Your task to perform on an android device: toggle priority inbox in the gmail app Image 0: 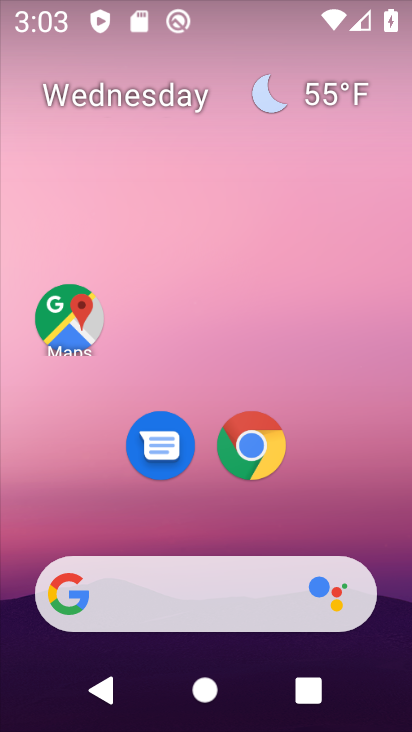
Step 0: drag from (362, 413) to (347, 15)
Your task to perform on an android device: toggle priority inbox in the gmail app Image 1: 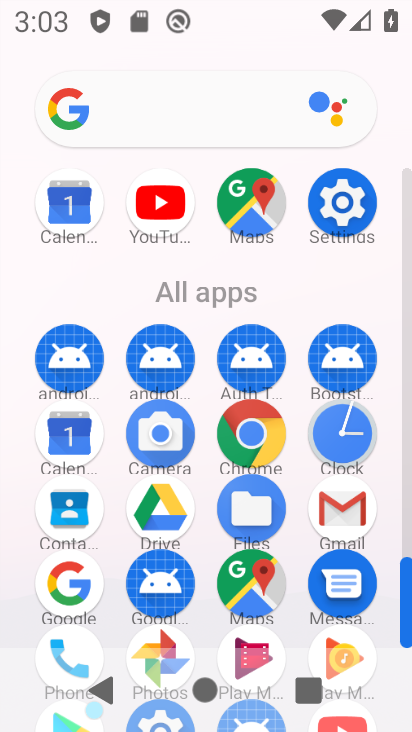
Step 1: click (337, 483)
Your task to perform on an android device: toggle priority inbox in the gmail app Image 2: 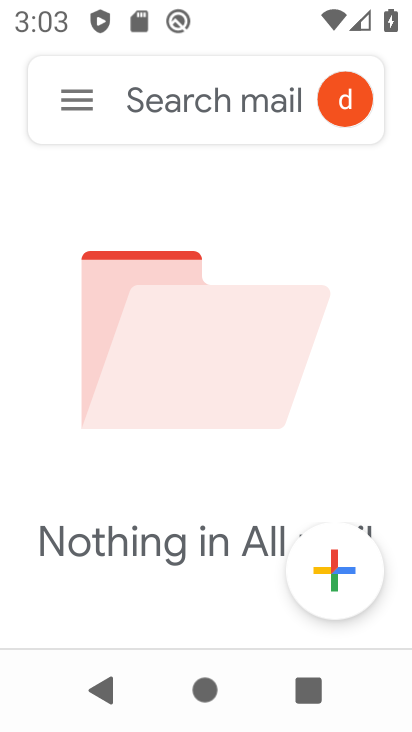
Step 2: click (64, 90)
Your task to perform on an android device: toggle priority inbox in the gmail app Image 3: 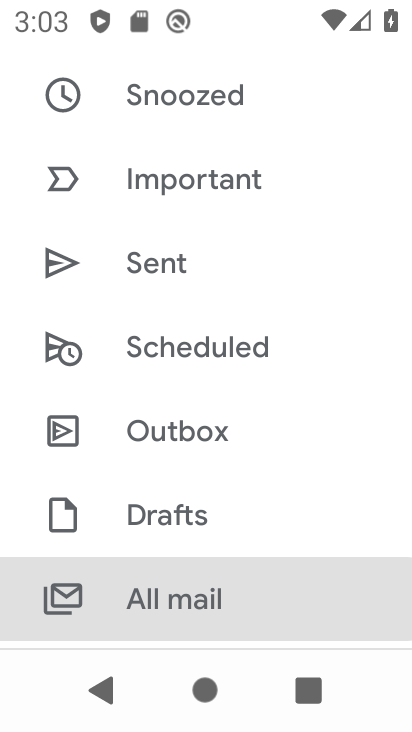
Step 3: drag from (276, 202) to (288, 647)
Your task to perform on an android device: toggle priority inbox in the gmail app Image 4: 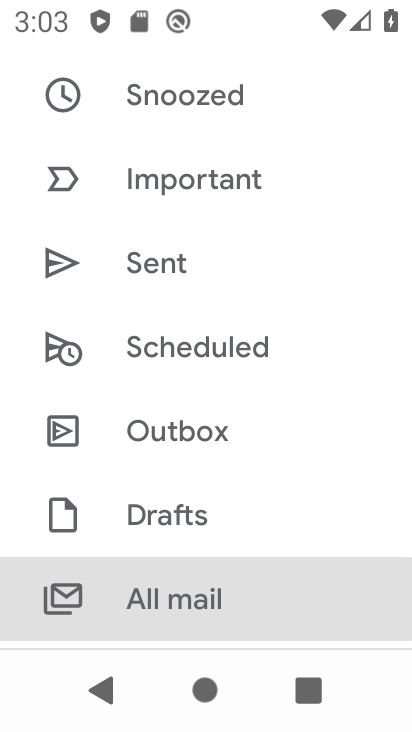
Step 4: drag from (321, 519) to (317, 276)
Your task to perform on an android device: toggle priority inbox in the gmail app Image 5: 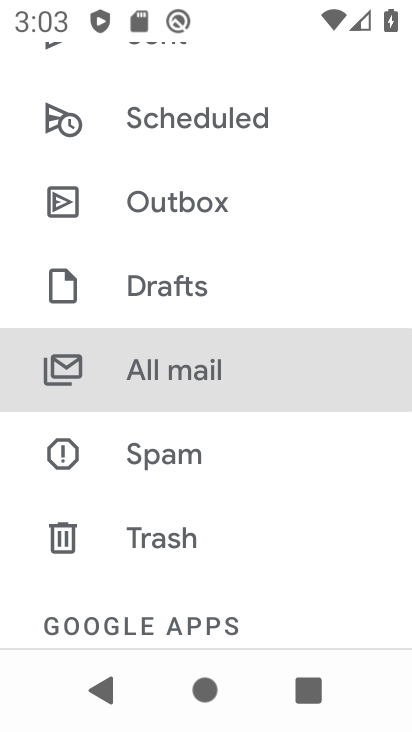
Step 5: drag from (314, 271) to (330, 21)
Your task to perform on an android device: toggle priority inbox in the gmail app Image 6: 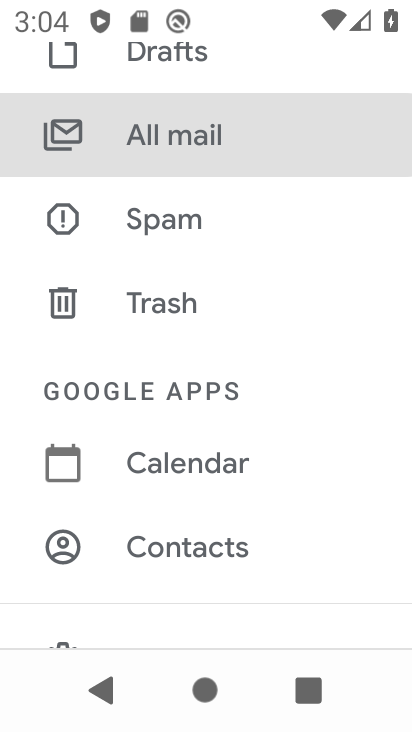
Step 6: drag from (256, 400) to (269, 160)
Your task to perform on an android device: toggle priority inbox in the gmail app Image 7: 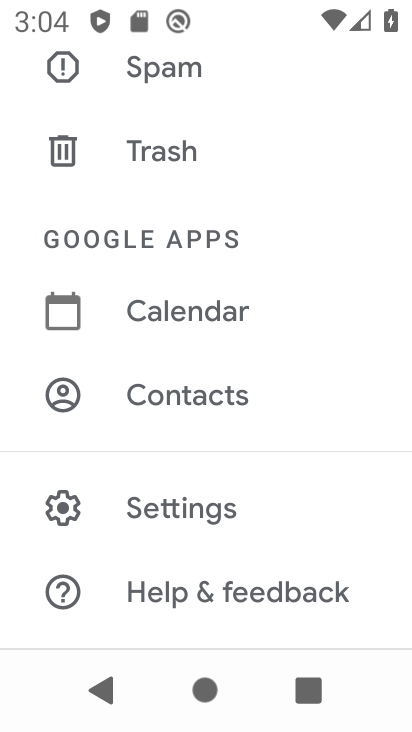
Step 7: click (165, 503)
Your task to perform on an android device: toggle priority inbox in the gmail app Image 8: 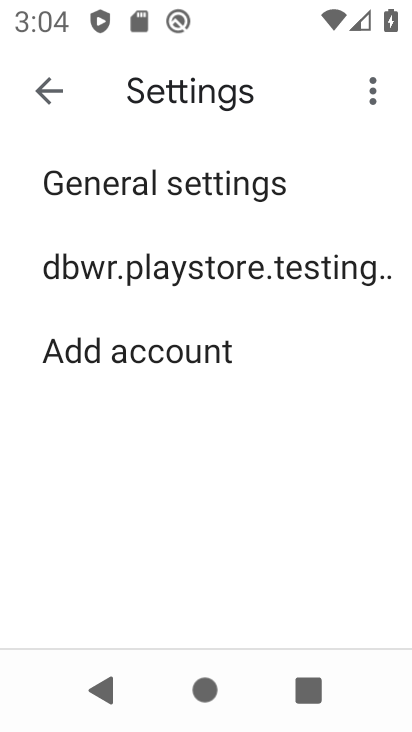
Step 8: click (198, 208)
Your task to perform on an android device: toggle priority inbox in the gmail app Image 9: 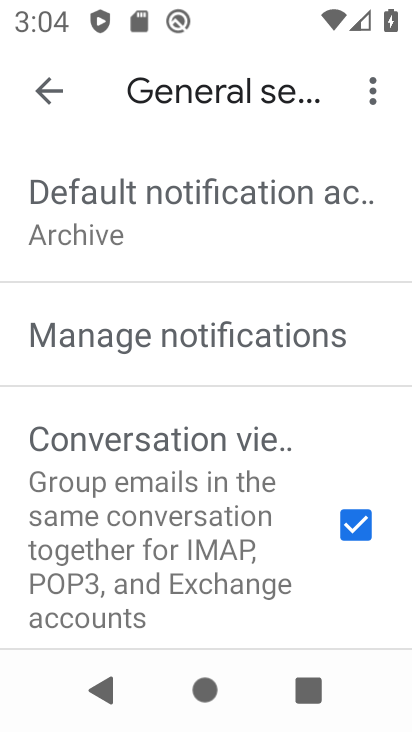
Step 9: drag from (174, 442) to (243, 261)
Your task to perform on an android device: toggle priority inbox in the gmail app Image 10: 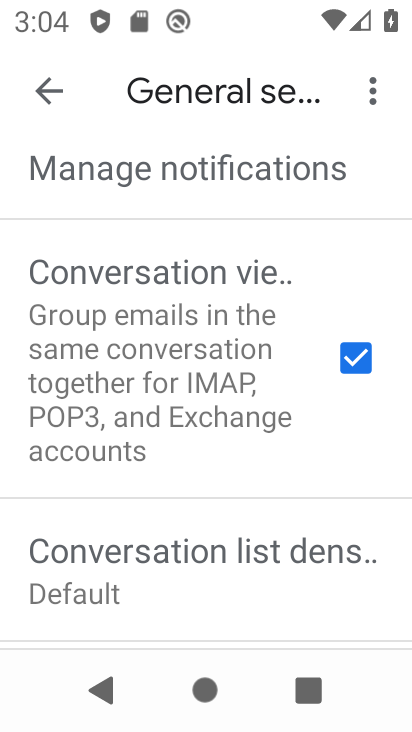
Step 10: click (246, 473)
Your task to perform on an android device: toggle priority inbox in the gmail app Image 11: 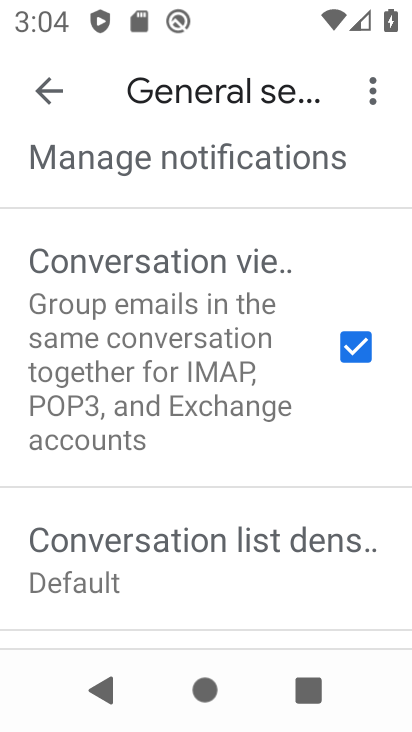
Step 11: drag from (205, 630) to (250, 429)
Your task to perform on an android device: toggle priority inbox in the gmail app Image 12: 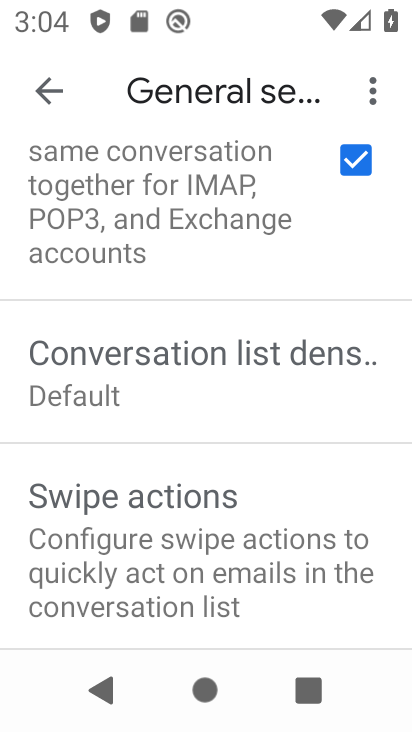
Step 12: drag from (252, 612) to (288, 419)
Your task to perform on an android device: toggle priority inbox in the gmail app Image 13: 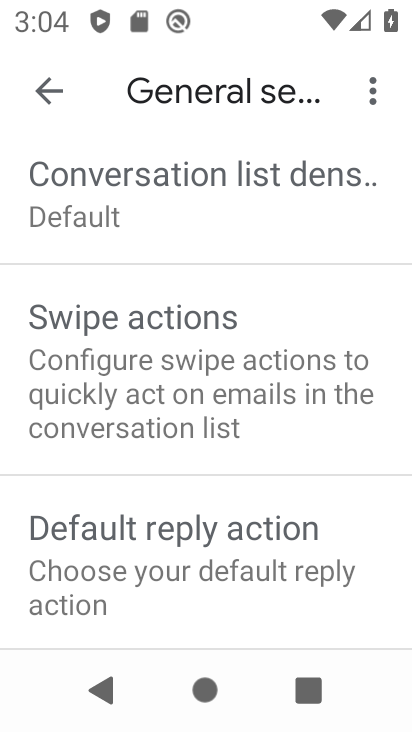
Step 13: drag from (212, 624) to (250, 442)
Your task to perform on an android device: toggle priority inbox in the gmail app Image 14: 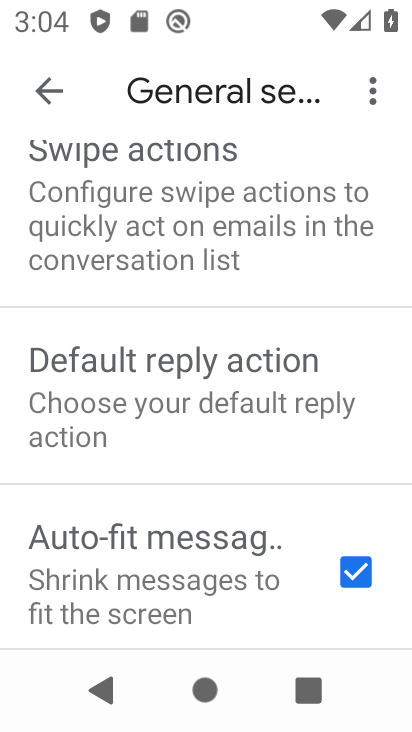
Step 14: drag from (167, 518) to (175, 195)
Your task to perform on an android device: toggle priority inbox in the gmail app Image 15: 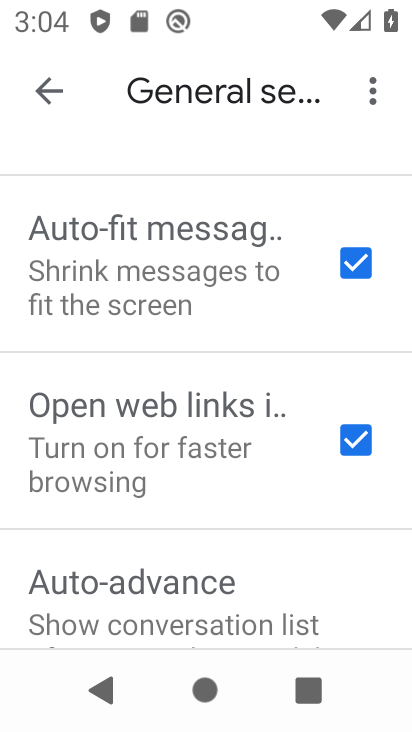
Step 15: drag from (171, 526) to (208, 183)
Your task to perform on an android device: toggle priority inbox in the gmail app Image 16: 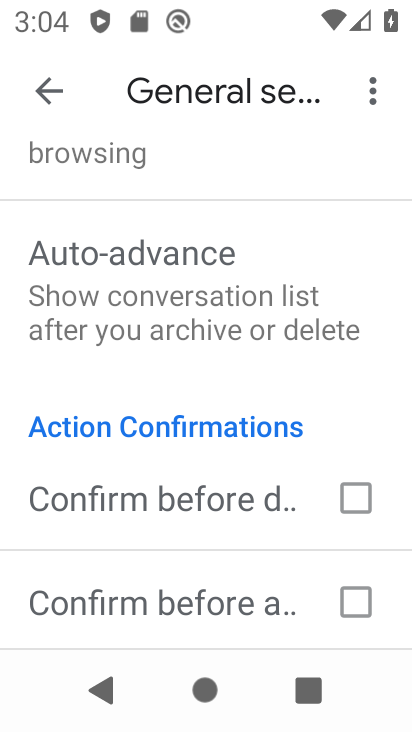
Step 16: drag from (173, 542) to (222, 213)
Your task to perform on an android device: toggle priority inbox in the gmail app Image 17: 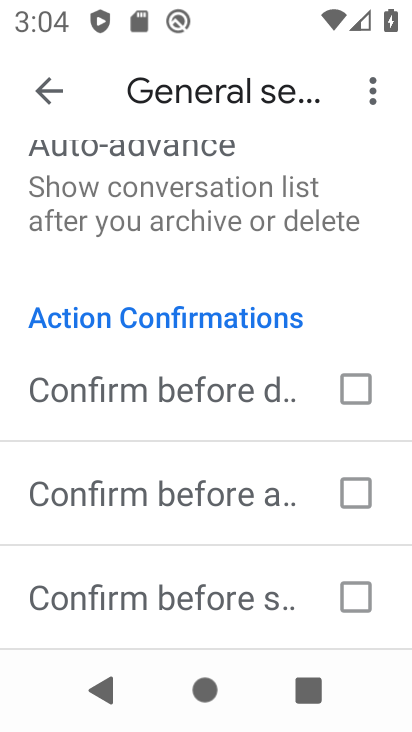
Step 17: drag from (203, 543) to (239, 189)
Your task to perform on an android device: toggle priority inbox in the gmail app Image 18: 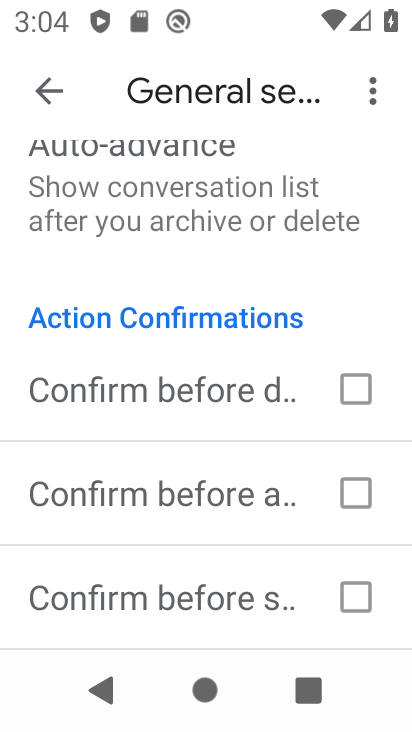
Step 18: press back button
Your task to perform on an android device: toggle priority inbox in the gmail app Image 19: 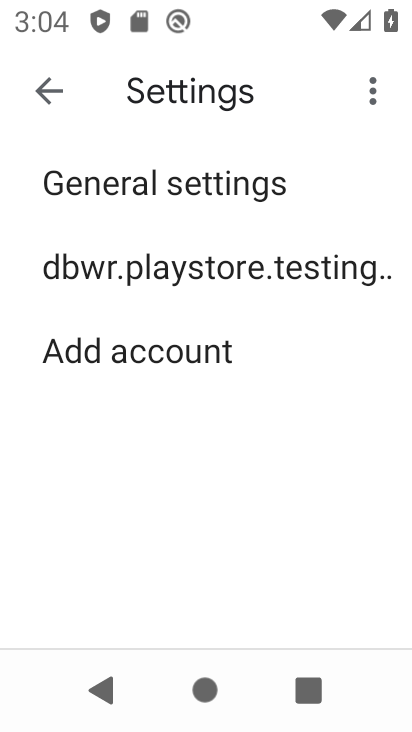
Step 19: press back button
Your task to perform on an android device: toggle priority inbox in the gmail app Image 20: 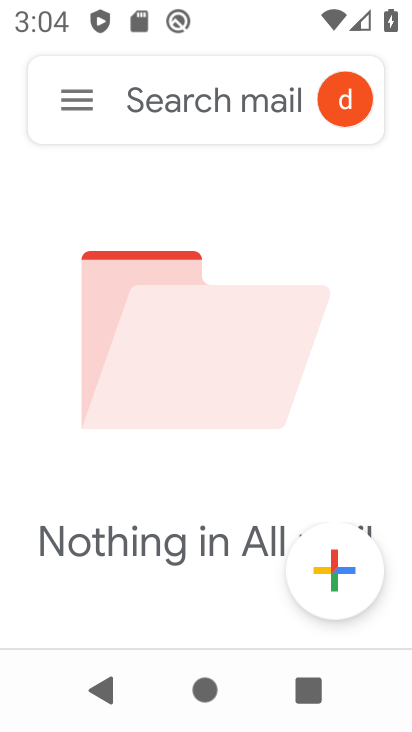
Step 20: click (70, 97)
Your task to perform on an android device: toggle priority inbox in the gmail app Image 21: 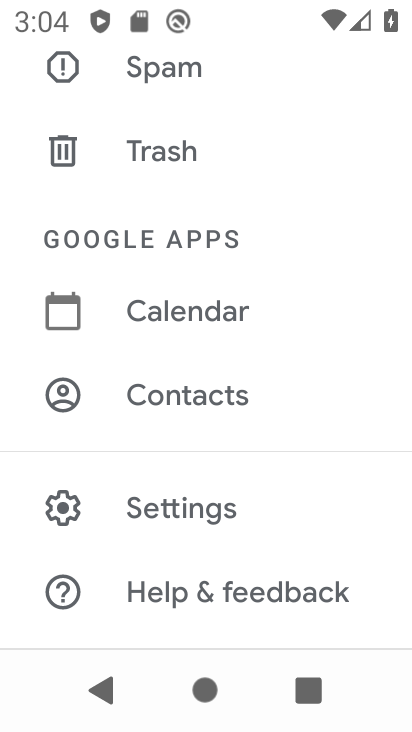
Step 21: drag from (200, 198) to (199, 585)
Your task to perform on an android device: toggle priority inbox in the gmail app Image 22: 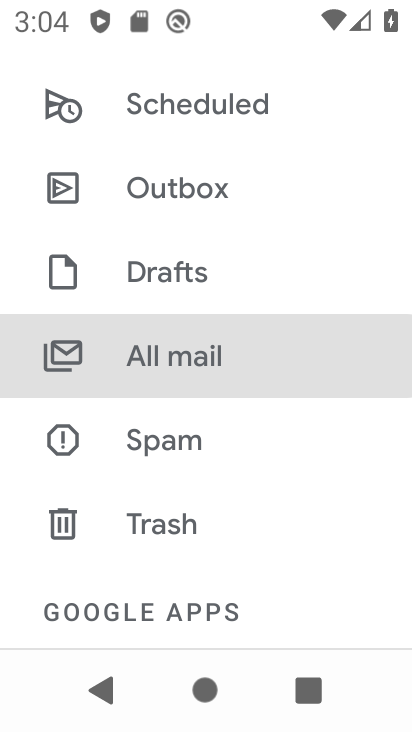
Step 22: drag from (289, 365) to (302, 554)
Your task to perform on an android device: toggle priority inbox in the gmail app Image 23: 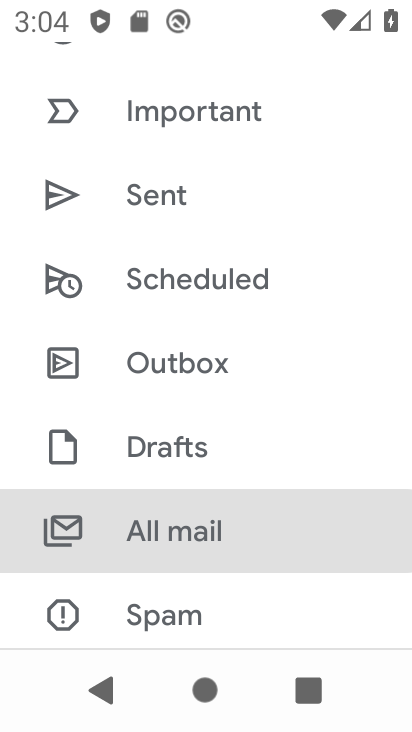
Step 23: drag from (307, 171) to (320, 545)
Your task to perform on an android device: toggle priority inbox in the gmail app Image 24: 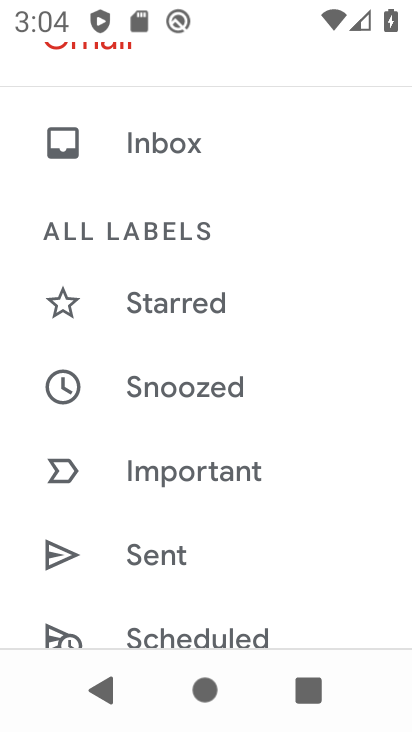
Step 24: drag from (241, 156) to (270, 540)
Your task to perform on an android device: toggle priority inbox in the gmail app Image 25: 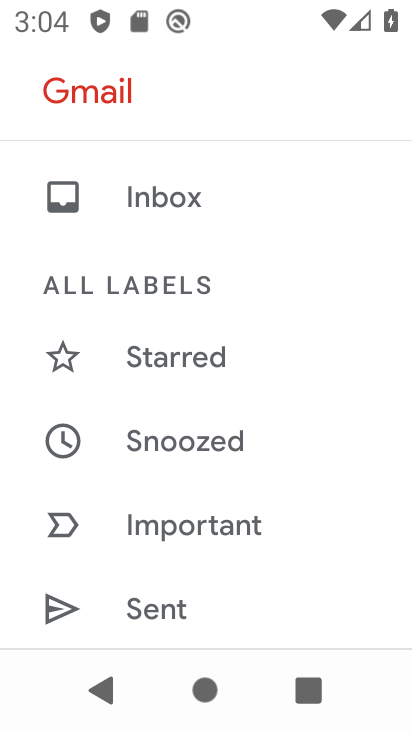
Step 25: click (244, 214)
Your task to perform on an android device: toggle priority inbox in the gmail app Image 26: 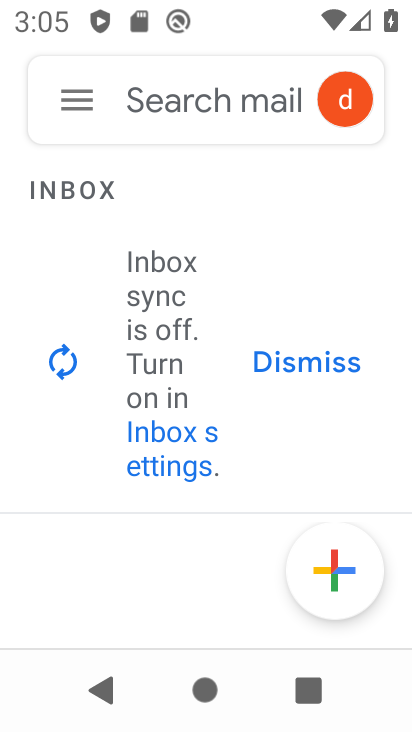
Step 26: click (153, 439)
Your task to perform on an android device: toggle priority inbox in the gmail app Image 27: 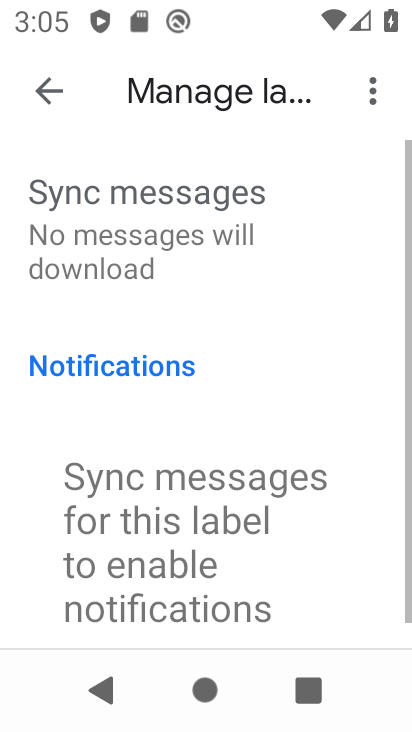
Step 27: drag from (239, 460) to (264, 148)
Your task to perform on an android device: toggle priority inbox in the gmail app Image 28: 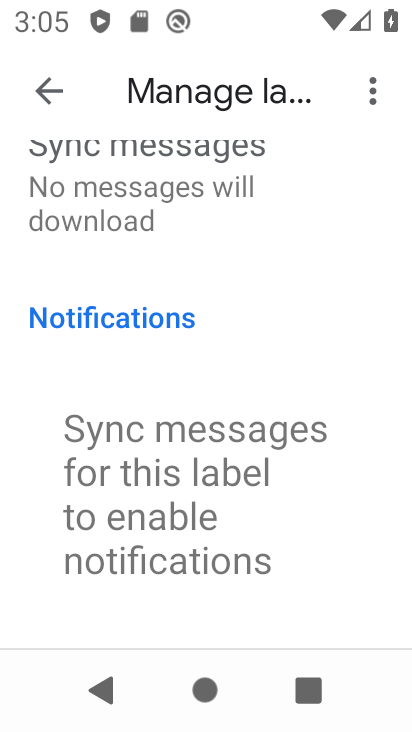
Step 28: drag from (247, 264) to (248, 526)
Your task to perform on an android device: toggle priority inbox in the gmail app Image 29: 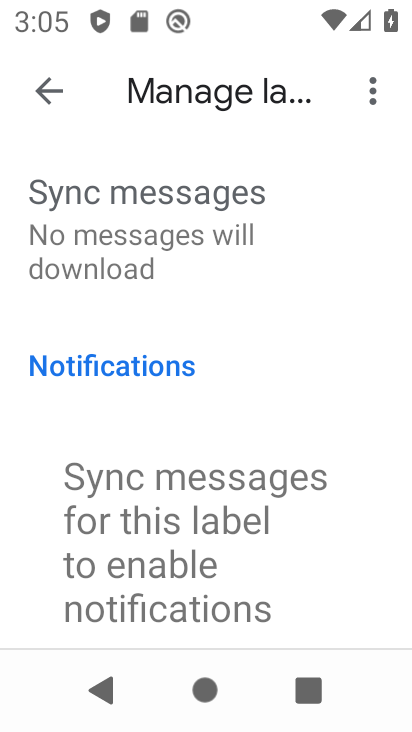
Step 29: click (365, 88)
Your task to perform on an android device: toggle priority inbox in the gmail app Image 30: 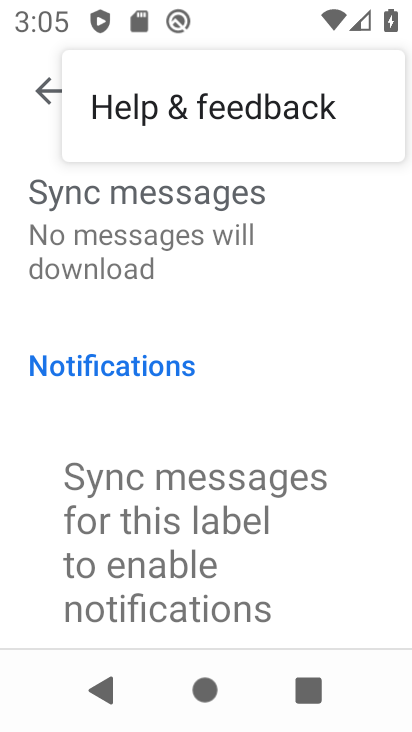
Step 30: task complete